Your task to perform on an android device: Open Yahoo.com Image 0: 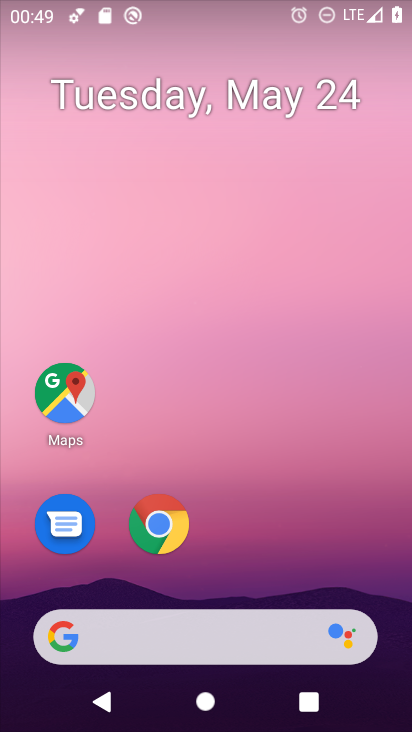
Step 0: click (148, 537)
Your task to perform on an android device: Open Yahoo.com Image 1: 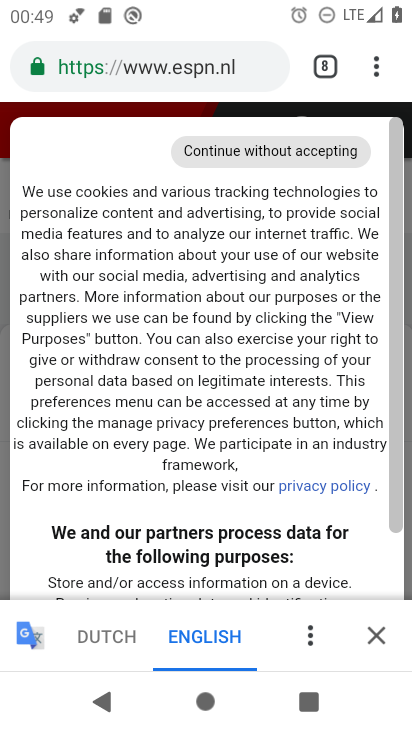
Step 1: click (323, 82)
Your task to perform on an android device: Open Yahoo.com Image 2: 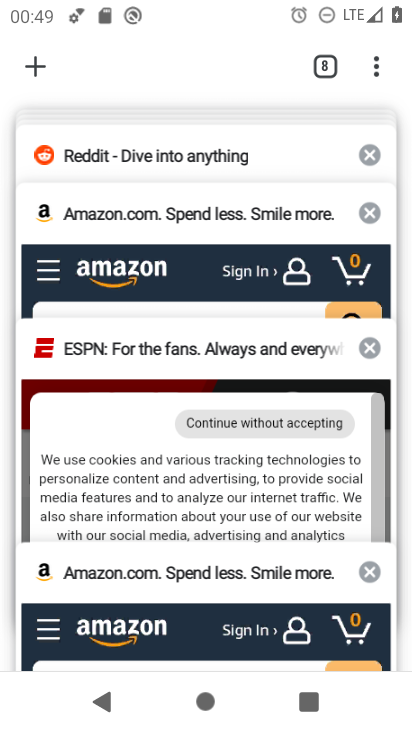
Step 2: drag from (188, 219) to (235, 543)
Your task to perform on an android device: Open Yahoo.com Image 3: 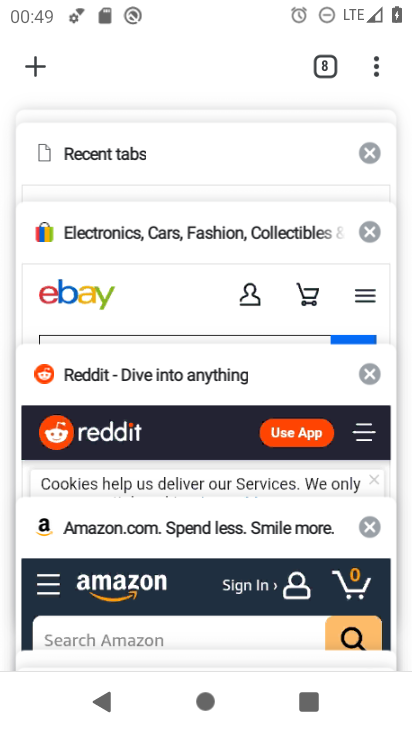
Step 3: drag from (181, 177) to (229, 573)
Your task to perform on an android device: Open Yahoo.com Image 4: 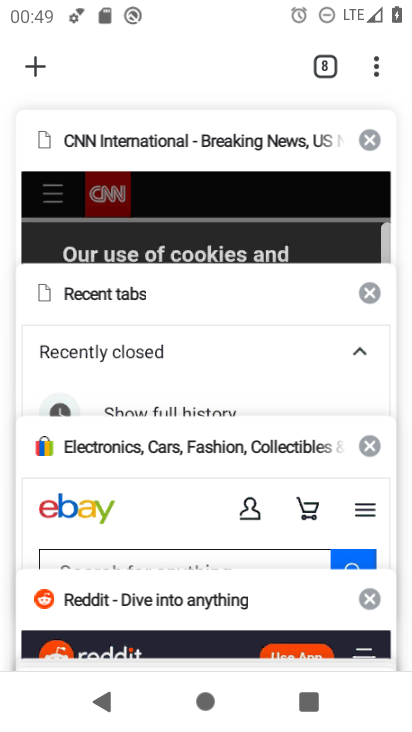
Step 4: drag from (188, 202) to (230, 555)
Your task to perform on an android device: Open Yahoo.com Image 5: 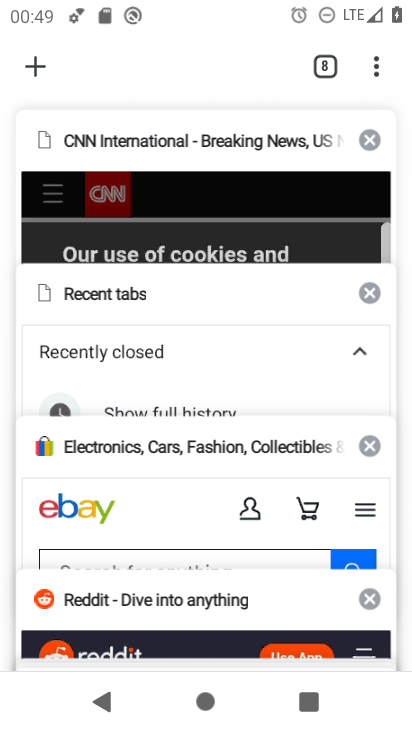
Step 5: drag from (217, 526) to (217, 154)
Your task to perform on an android device: Open Yahoo.com Image 6: 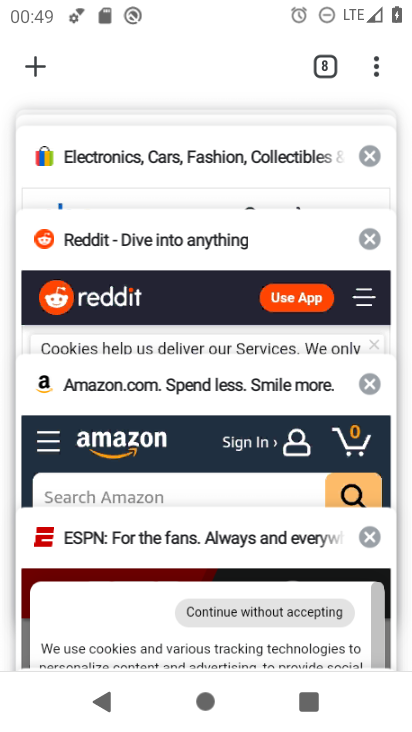
Step 6: drag from (223, 511) to (199, 117)
Your task to perform on an android device: Open Yahoo.com Image 7: 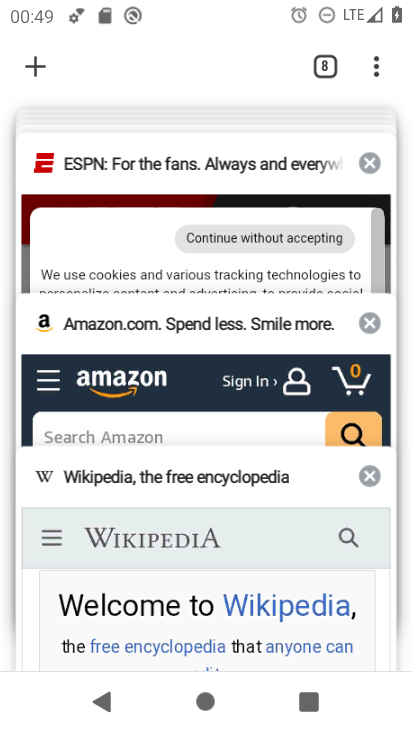
Step 7: drag from (167, 463) to (184, 193)
Your task to perform on an android device: Open Yahoo.com Image 8: 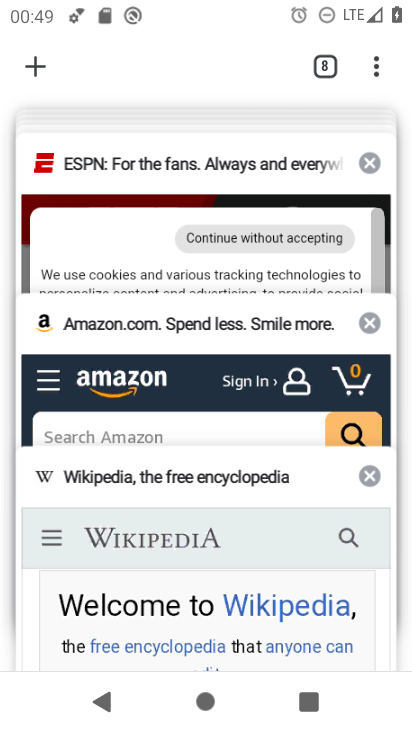
Step 8: click (49, 67)
Your task to perform on an android device: Open Yahoo.com Image 9: 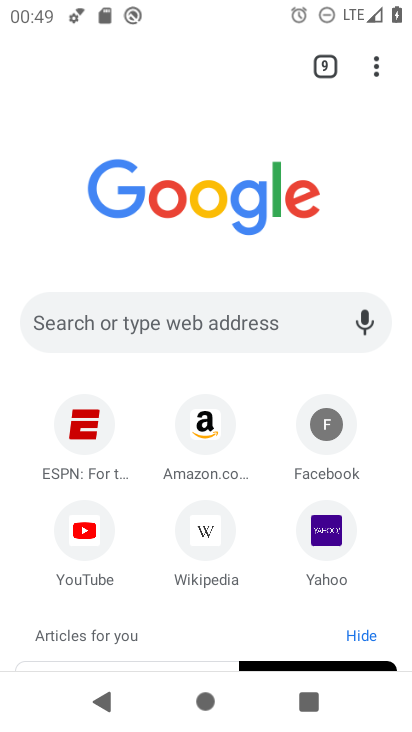
Step 9: click (315, 497)
Your task to perform on an android device: Open Yahoo.com Image 10: 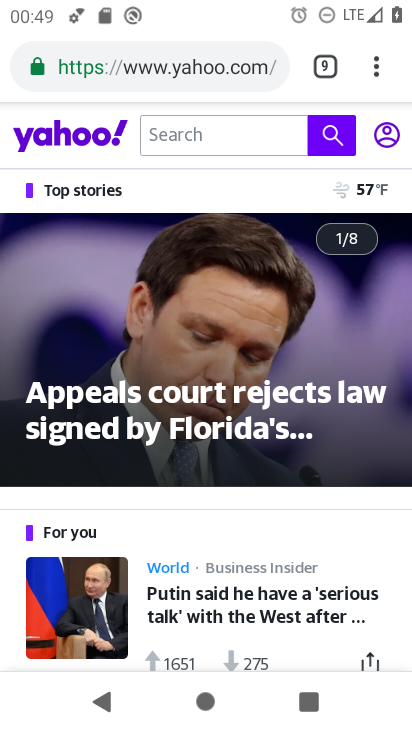
Step 10: task complete